Your task to perform on an android device: check battery use Image 0: 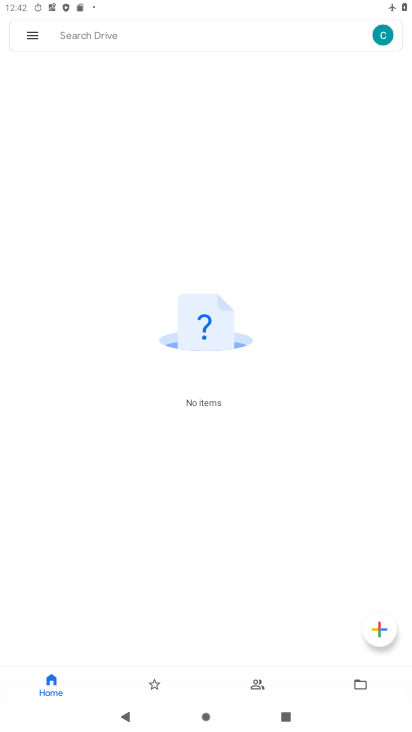
Step 0: press home button
Your task to perform on an android device: check battery use Image 1: 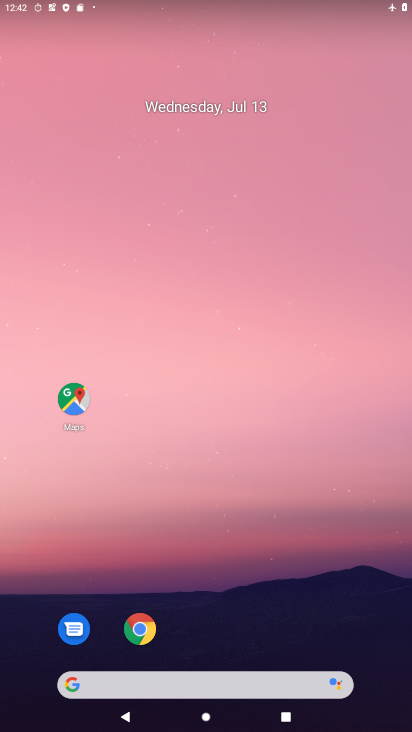
Step 1: drag from (188, 623) to (139, 236)
Your task to perform on an android device: check battery use Image 2: 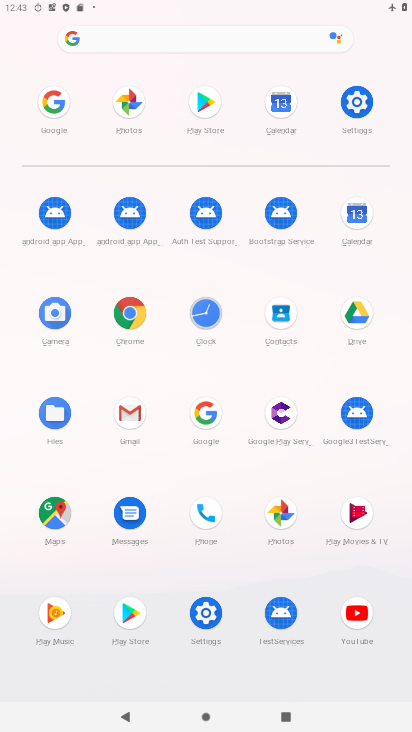
Step 2: click (344, 97)
Your task to perform on an android device: check battery use Image 3: 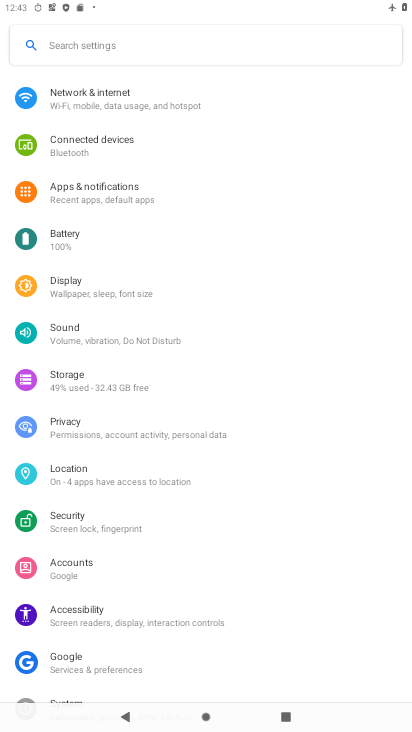
Step 3: click (122, 254)
Your task to perform on an android device: check battery use Image 4: 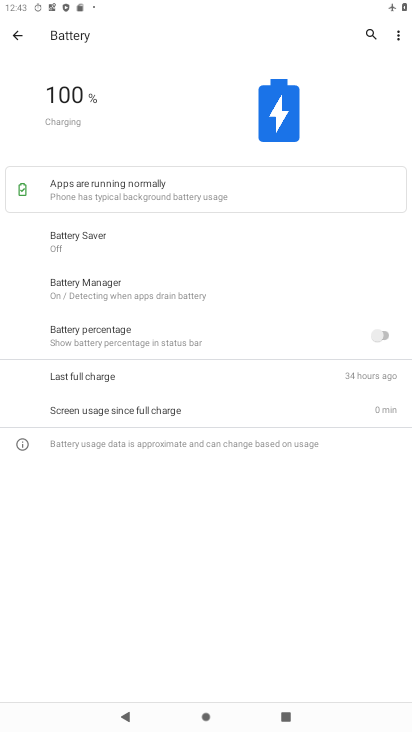
Step 4: click (395, 36)
Your task to perform on an android device: check battery use Image 5: 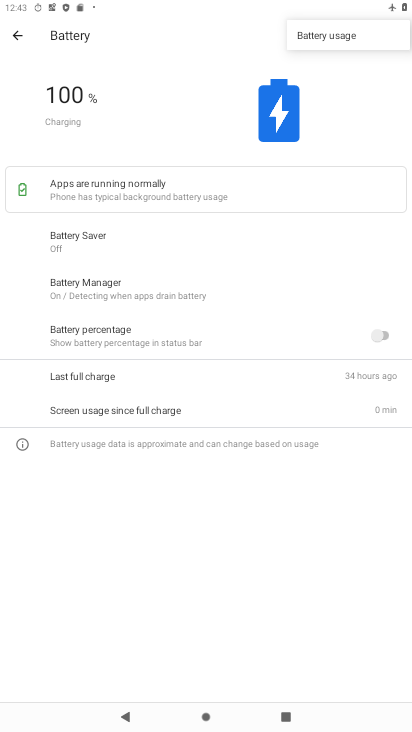
Step 5: click (312, 38)
Your task to perform on an android device: check battery use Image 6: 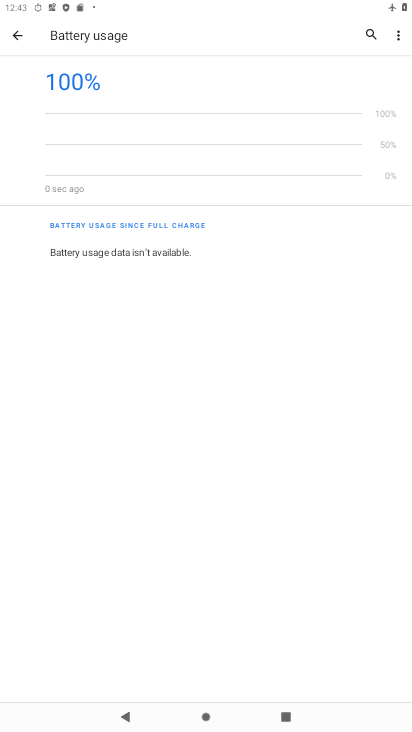
Step 6: task complete